Your task to perform on an android device: Open ESPN.com Image 0: 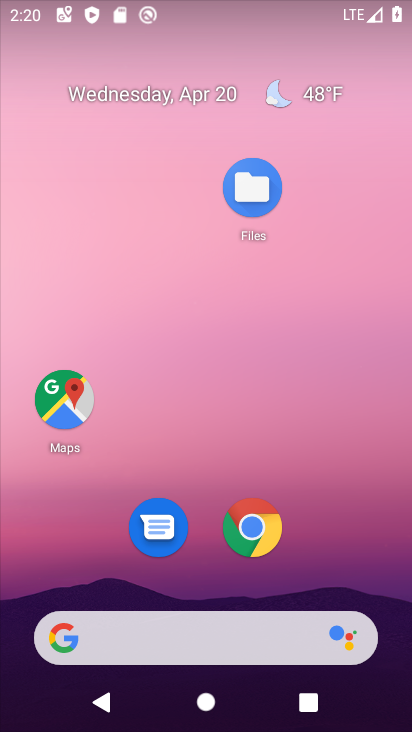
Step 0: click (255, 521)
Your task to perform on an android device: Open ESPN.com Image 1: 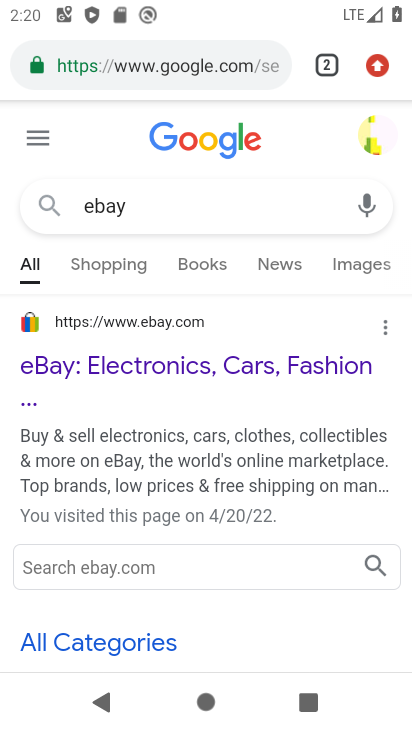
Step 1: click (147, 65)
Your task to perform on an android device: Open ESPN.com Image 2: 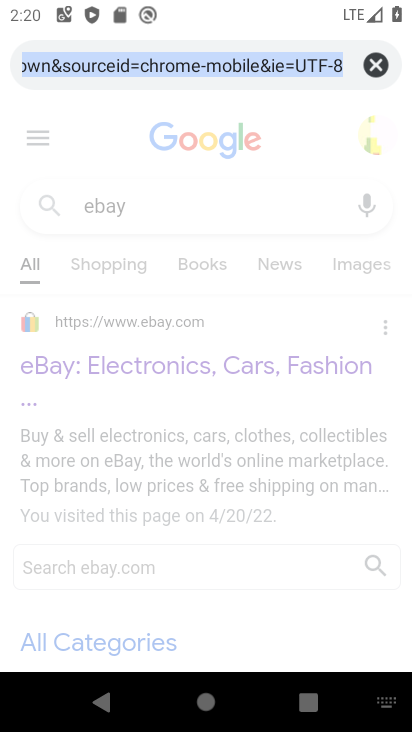
Step 2: click (375, 57)
Your task to perform on an android device: Open ESPN.com Image 3: 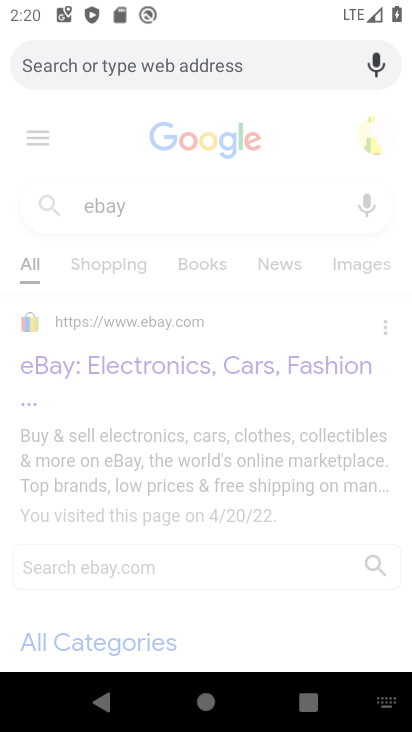
Step 3: type "espn.com"
Your task to perform on an android device: Open ESPN.com Image 4: 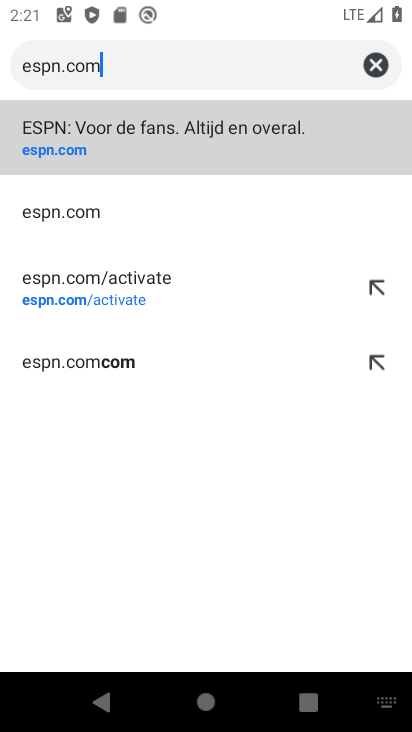
Step 4: click (74, 136)
Your task to perform on an android device: Open ESPN.com Image 5: 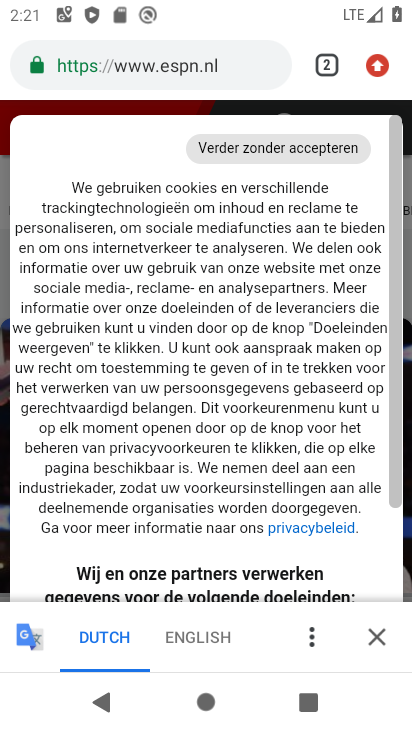
Step 5: task complete